Your task to perform on an android device: Go to ESPN.com Image 0: 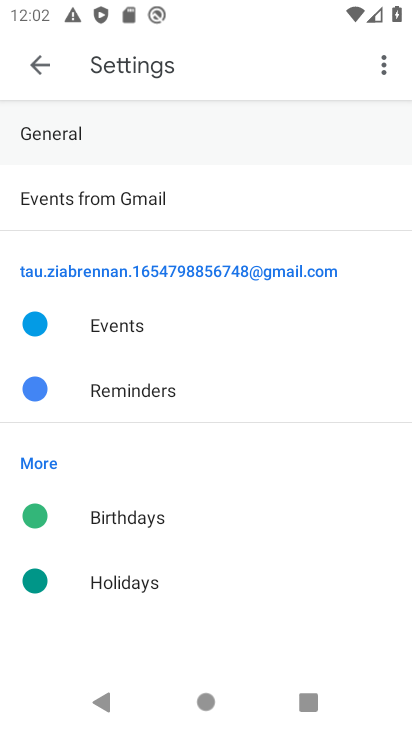
Step 0: press home button
Your task to perform on an android device: Go to ESPN.com Image 1: 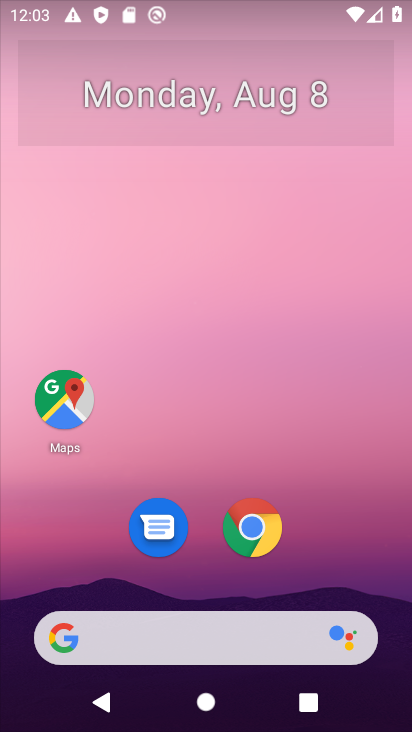
Step 1: click (249, 630)
Your task to perform on an android device: Go to ESPN.com Image 2: 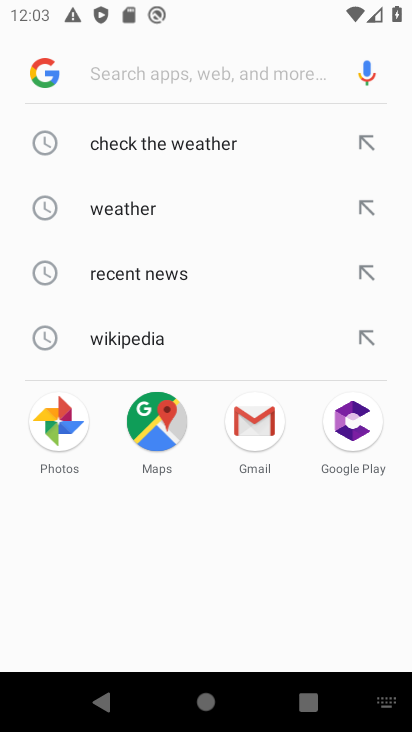
Step 2: type "ESPN.com"
Your task to perform on an android device: Go to ESPN.com Image 3: 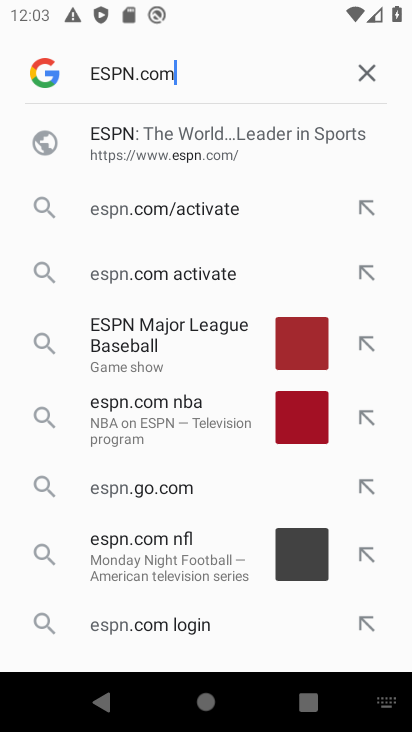
Step 3: press enter
Your task to perform on an android device: Go to ESPN.com Image 4: 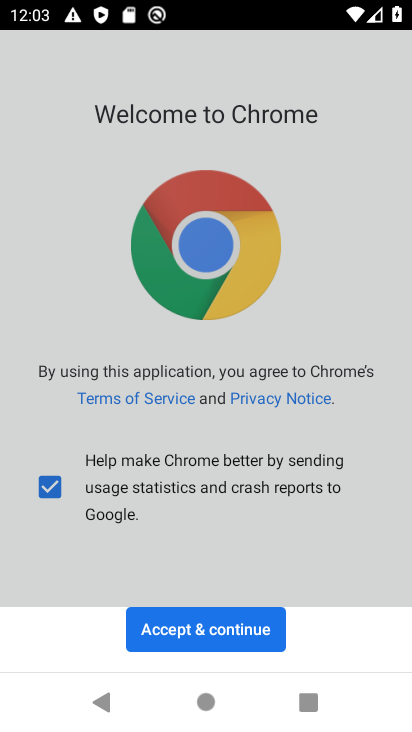
Step 4: click (197, 632)
Your task to perform on an android device: Go to ESPN.com Image 5: 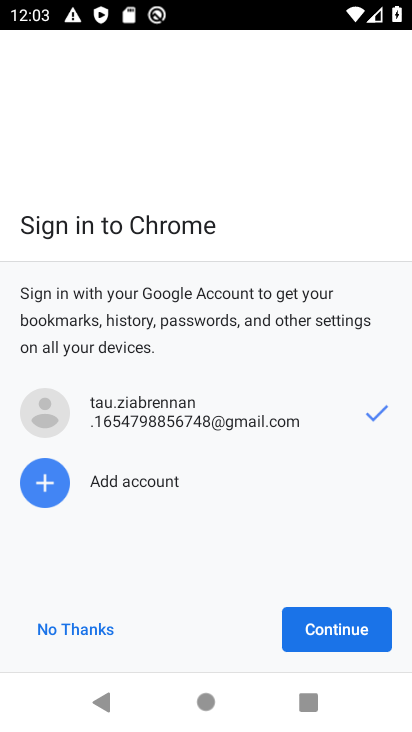
Step 5: click (312, 635)
Your task to perform on an android device: Go to ESPN.com Image 6: 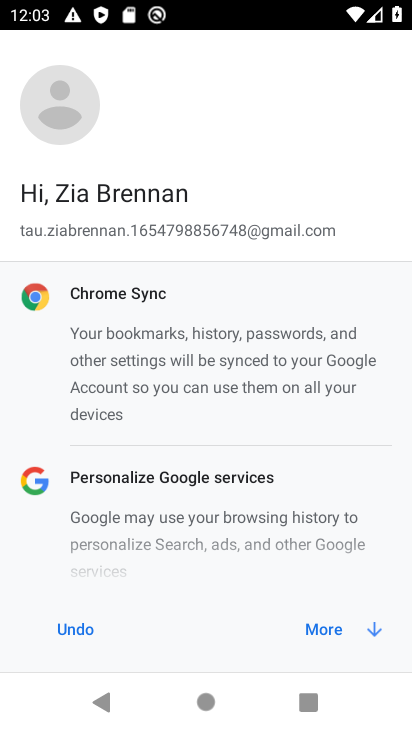
Step 6: click (326, 622)
Your task to perform on an android device: Go to ESPN.com Image 7: 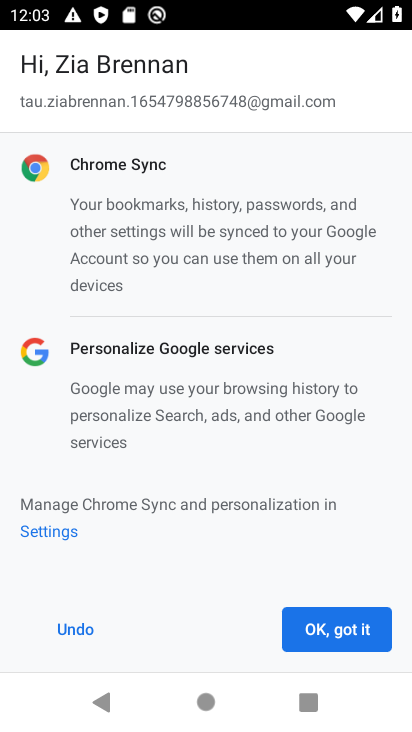
Step 7: click (346, 634)
Your task to perform on an android device: Go to ESPN.com Image 8: 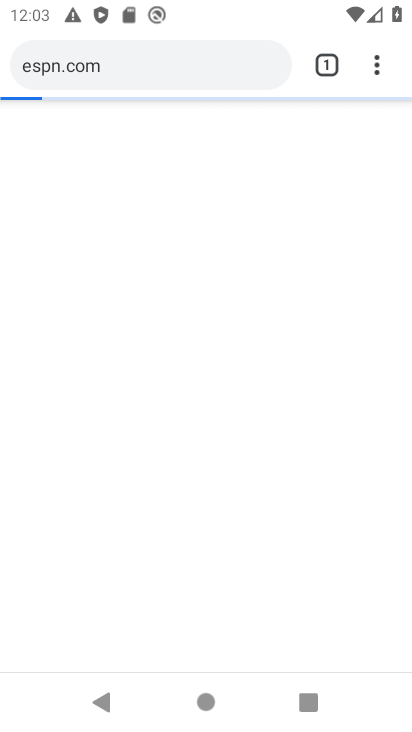
Step 8: task complete